Your task to perform on an android device: Open my contact list Image 0: 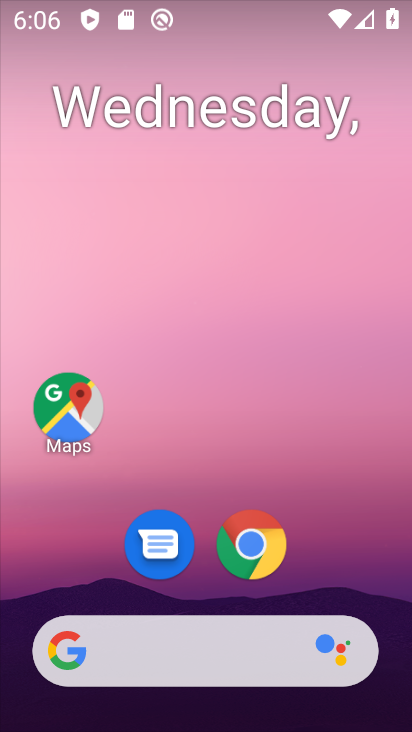
Step 0: click (233, 12)
Your task to perform on an android device: Open my contact list Image 1: 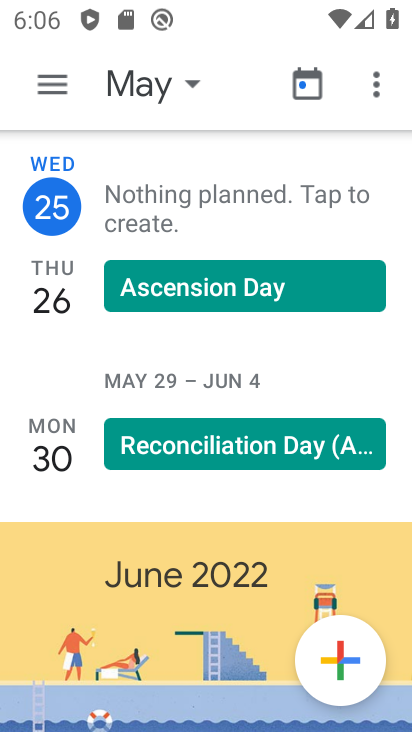
Step 1: press home button
Your task to perform on an android device: Open my contact list Image 2: 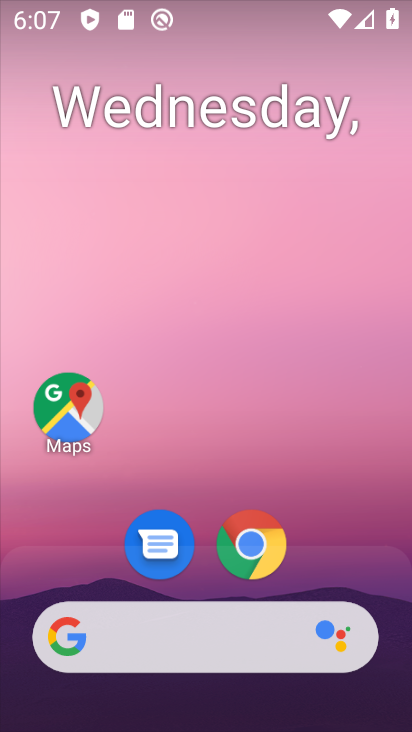
Step 2: drag from (199, 474) to (133, 54)
Your task to perform on an android device: Open my contact list Image 3: 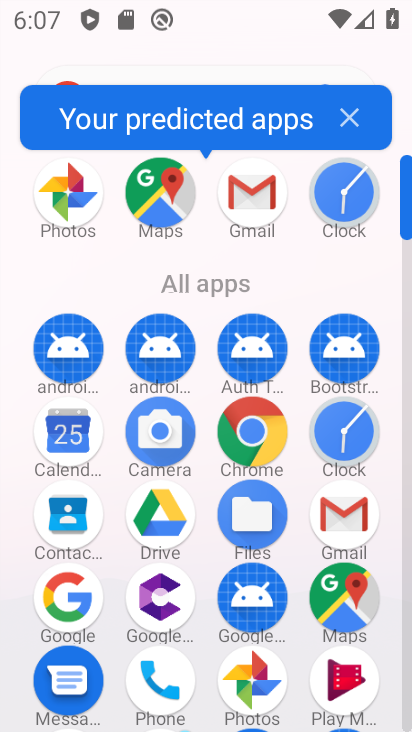
Step 3: click (54, 523)
Your task to perform on an android device: Open my contact list Image 4: 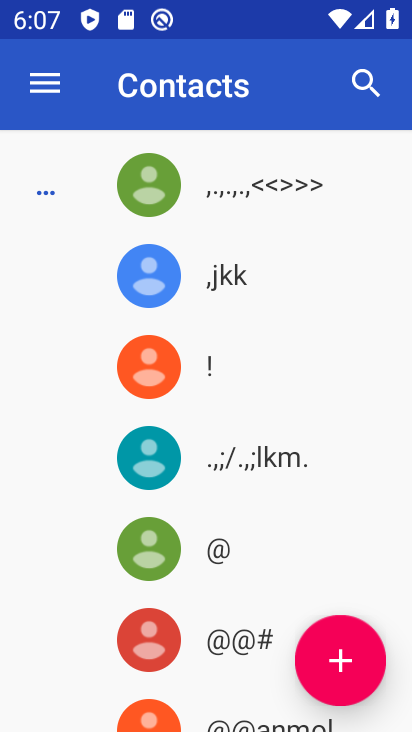
Step 4: task complete